Your task to perform on an android device: Open sound settings Image 0: 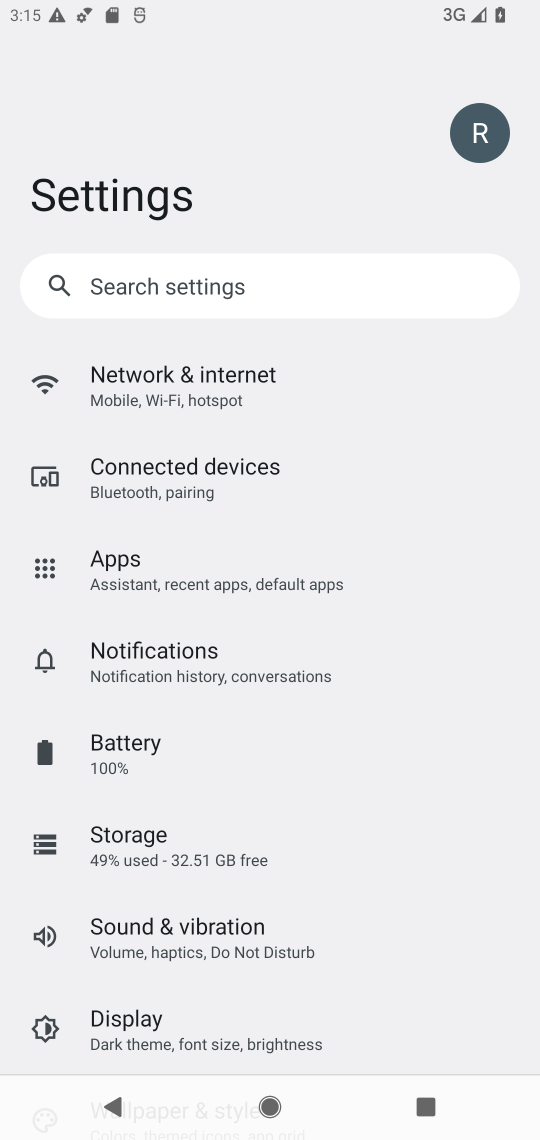
Step 0: press home button
Your task to perform on an android device: Open sound settings Image 1: 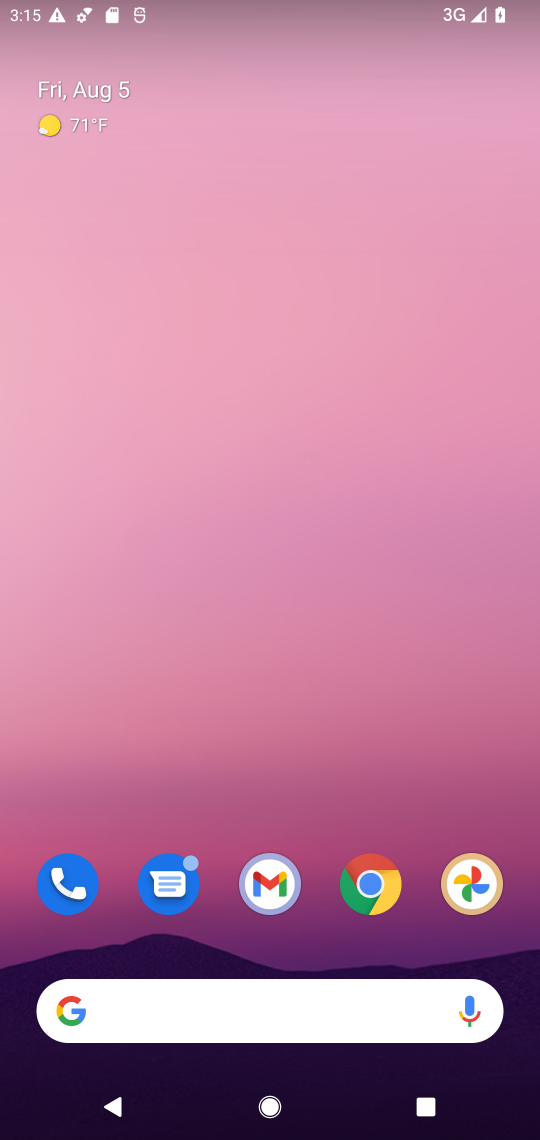
Step 1: drag from (522, 1067) to (280, 162)
Your task to perform on an android device: Open sound settings Image 2: 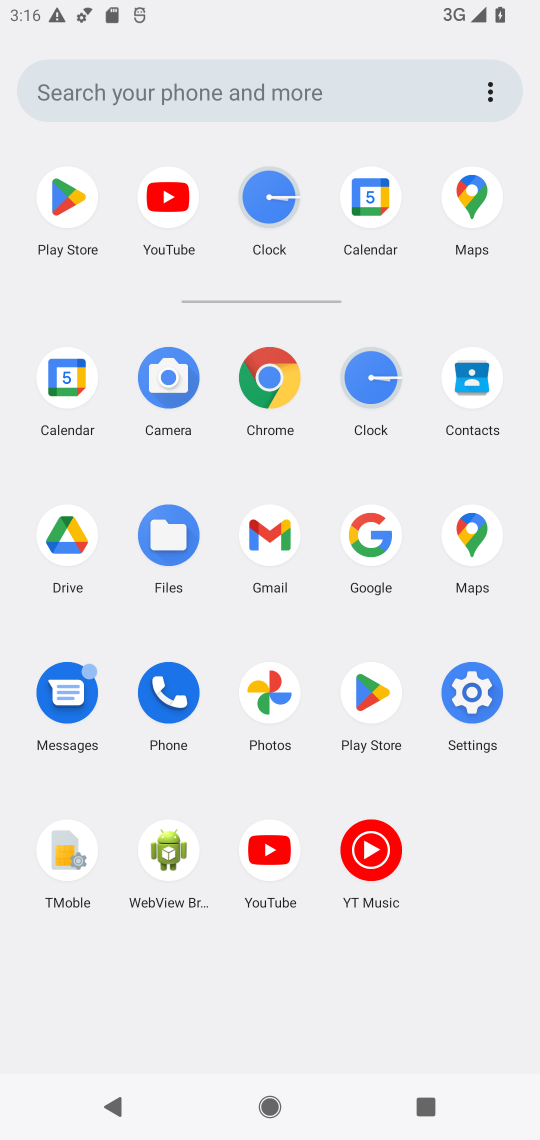
Step 2: click (470, 698)
Your task to perform on an android device: Open sound settings Image 3: 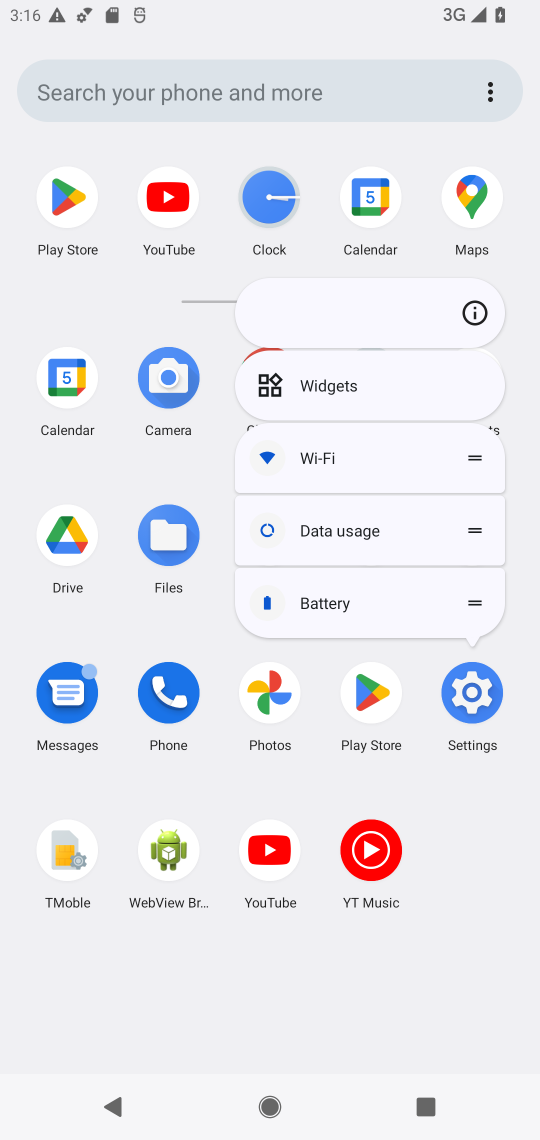
Step 3: click (470, 698)
Your task to perform on an android device: Open sound settings Image 4: 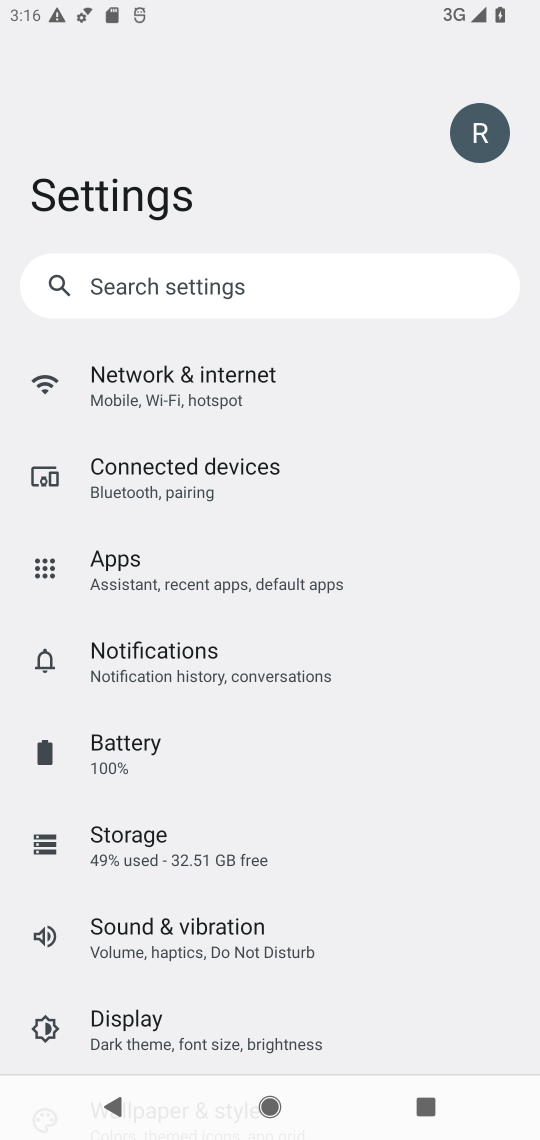
Step 4: drag from (135, 985) to (185, 279)
Your task to perform on an android device: Open sound settings Image 5: 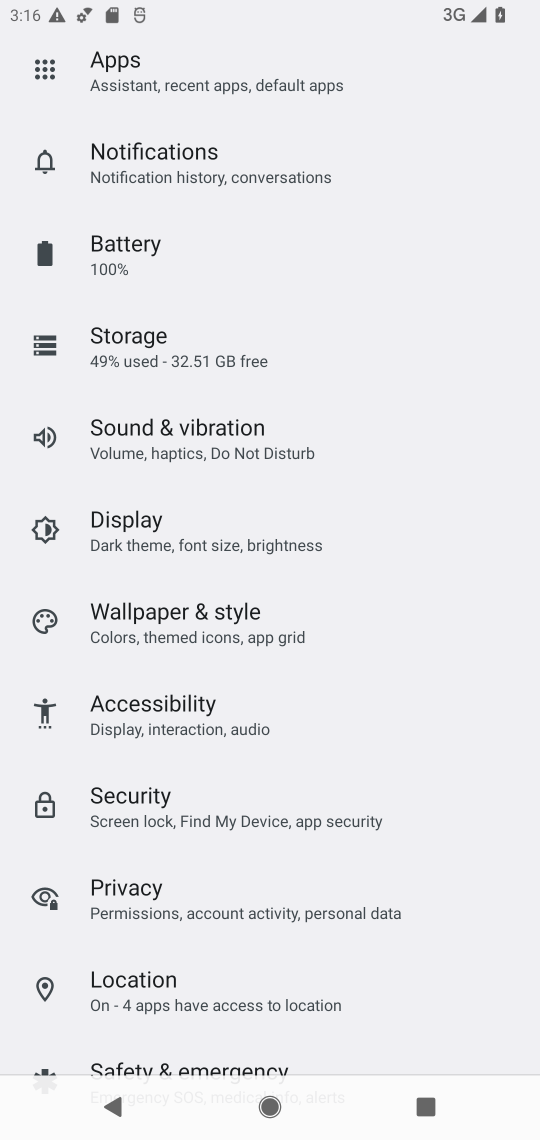
Step 5: drag from (175, 928) to (205, 304)
Your task to perform on an android device: Open sound settings Image 6: 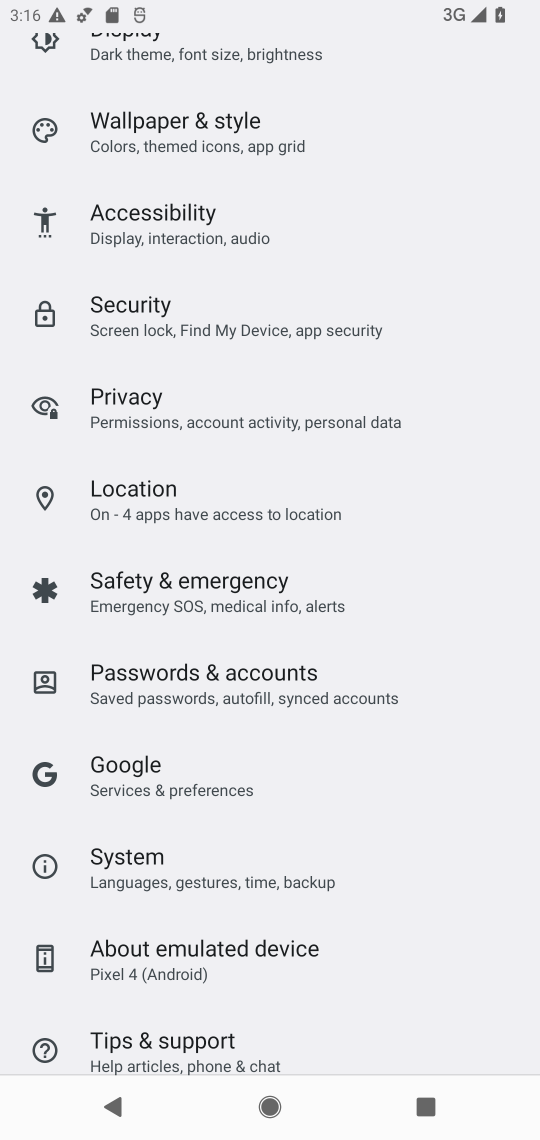
Step 6: drag from (182, 333) to (258, 980)
Your task to perform on an android device: Open sound settings Image 7: 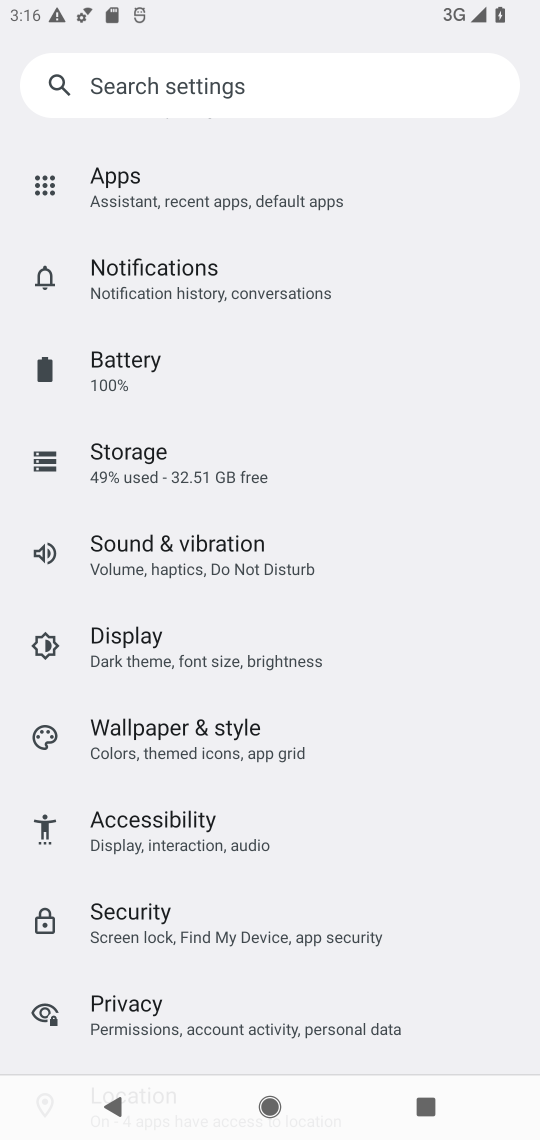
Step 7: drag from (180, 836) to (198, 678)
Your task to perform on an android device: Open sound settings Image 8: 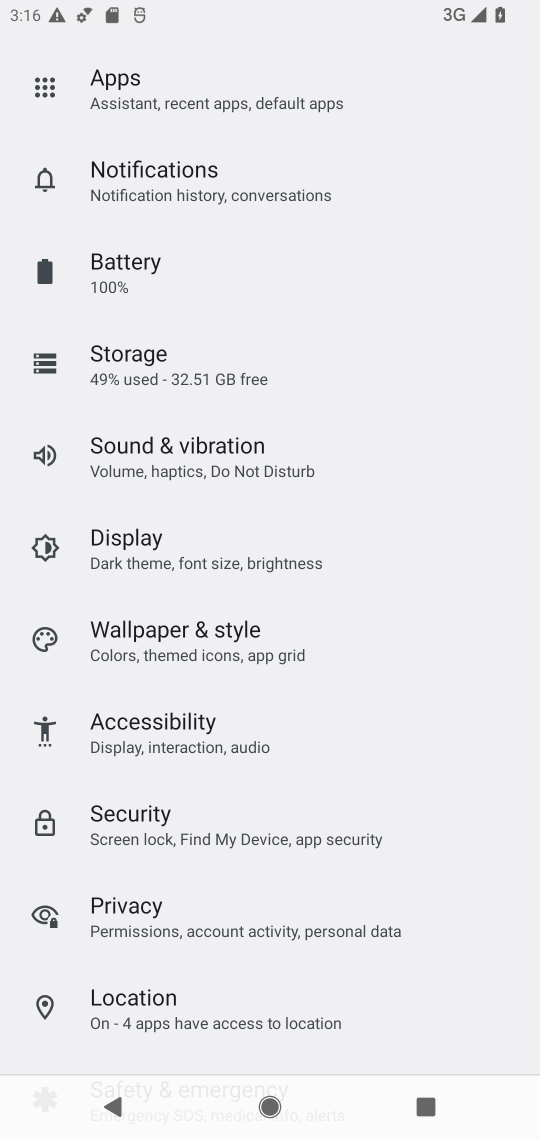
Step 8: click (218, 464)
Your task to perform on an android device: Open sound settings Image 9: 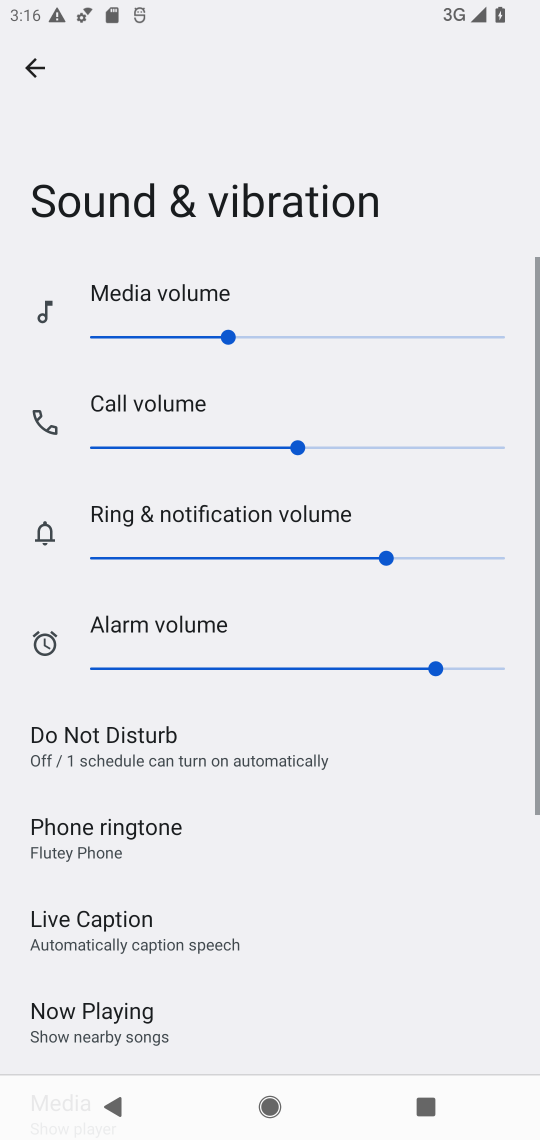
Step 9: task complete